Your task to perform on an android device: turn off smart reply in the gmail app Image 0: 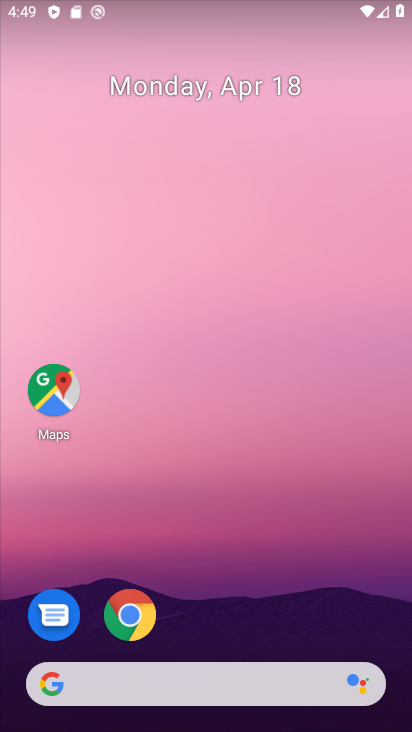
Step 0: click (277, 84)
Your task to perform on an android device: turn off smart reply in the gmail app Image 1: 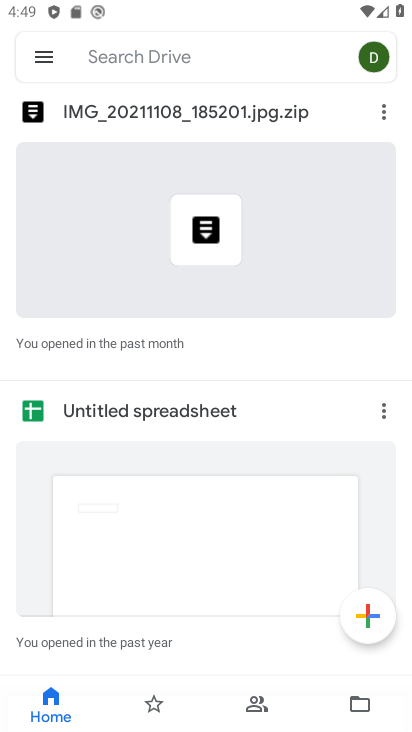
Step 1: press home button
Your task to perform on an android device: turn off smart reply in the gmail app Image 2: 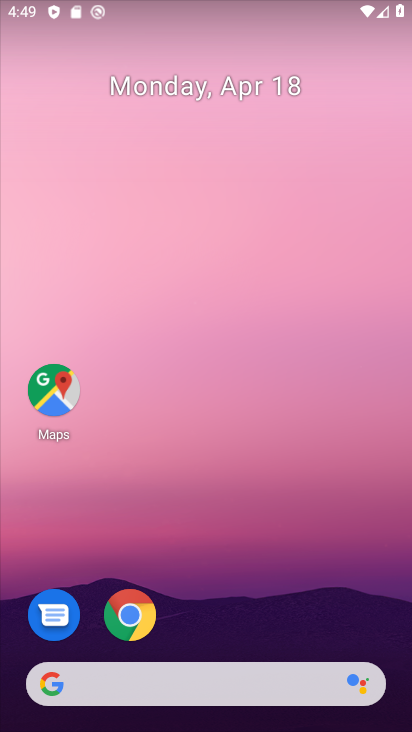
Step 2: drag from (268, 593) to (291, 120)
Your task to perform on an android device: turn off smart reply in the gmail app Image 3: 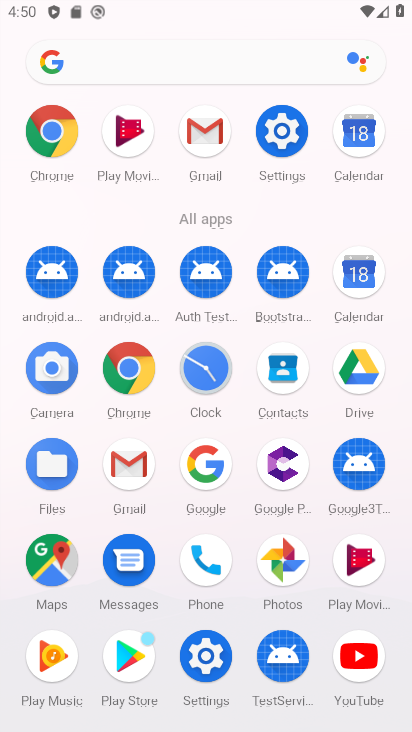
Step 3: click (133, 448)
Your task to perform on an android device: turn off smart reply in the gmail app Image 4: 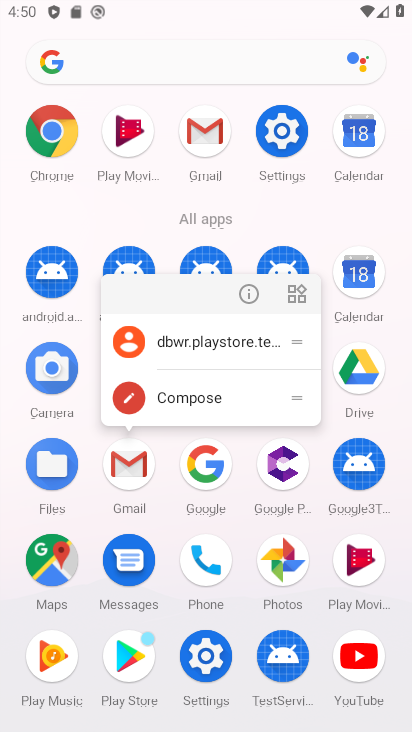
Step 4: click (139, 470)
Your task to perform on an android device: turn off smart reply in the gmail app Image 5: 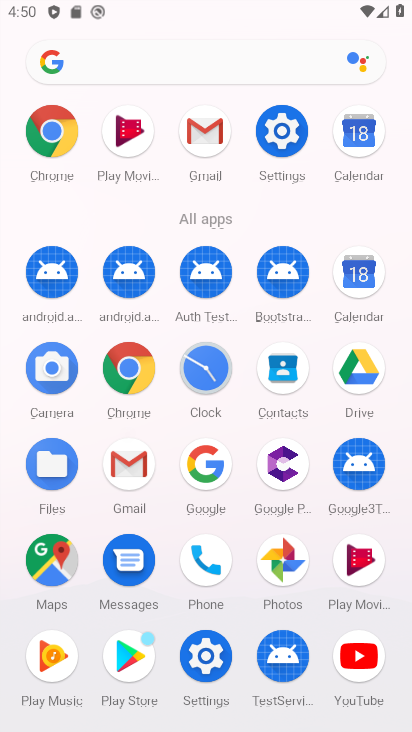
Step 5: click (139, 470)
Your task to perform on an android device: turn off smart reply in the gmail app Image 6: 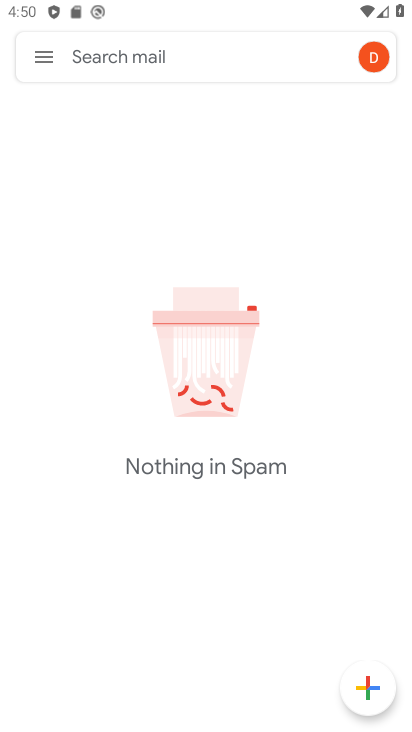
Step 6: click (43, 57)
Your task to perform on an android device: turn off smart reply in the gmail app Image 7: 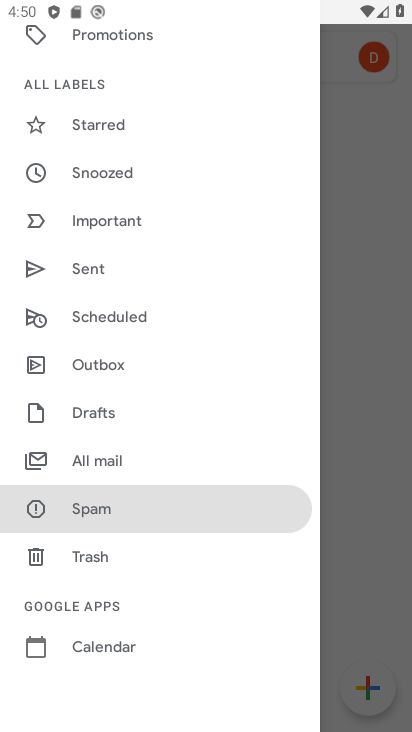
Step 7: drag from (226, 556) to (224, 325)
Your task to perform on an android device: turn off smart reply in the gmail app Image 8: 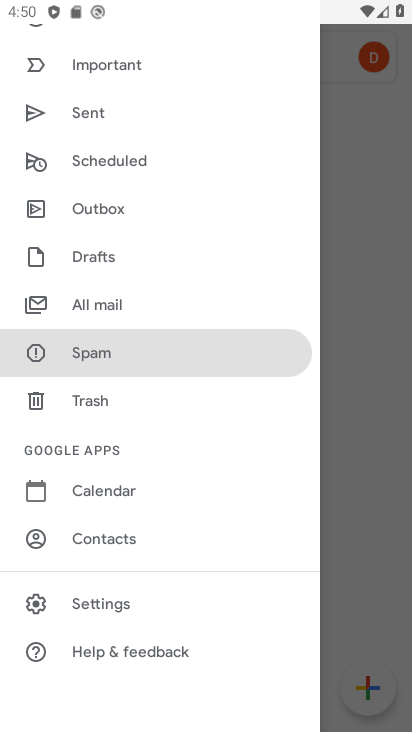
Step 8: click (93, 601)
Your task to perform on an android device: turn off smart reply in the gmail app Image 9: 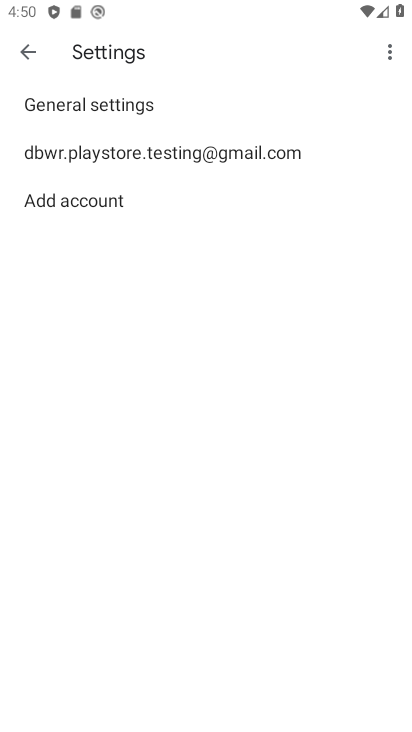
Step 9: click (134, 156)
Your task to perform on an android device: turn off smart reply in the gmail app Image 10: 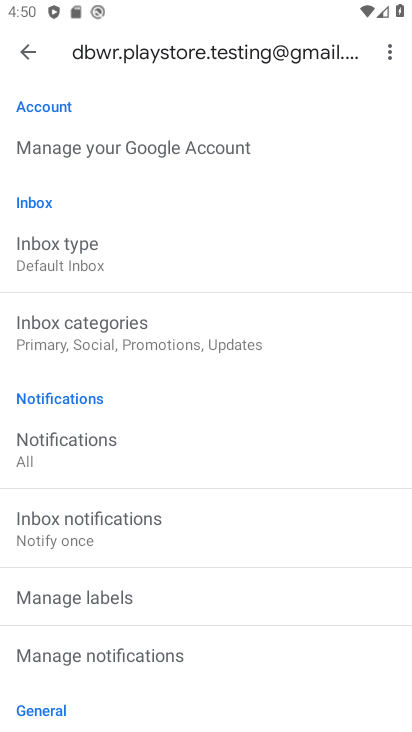
Step 10: drag from (273, 618) to (261, 180)
Your task to perform on an android device: turn off smart reply in the gmail app Image 11: 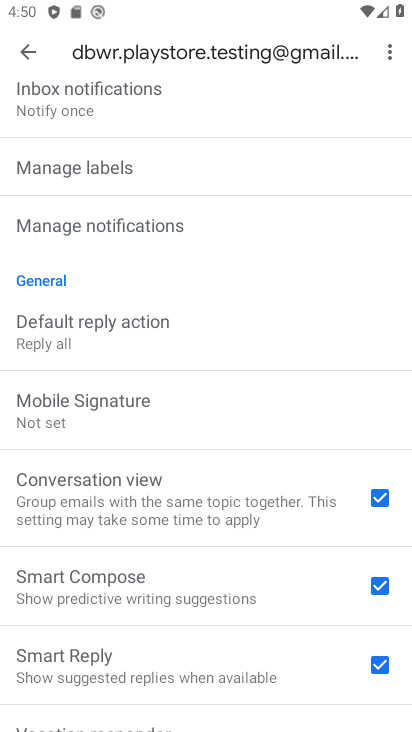
Step 11: click (152, 663)
Your task to perform on an android device: turn off smart reply in the gmail app Image 12: 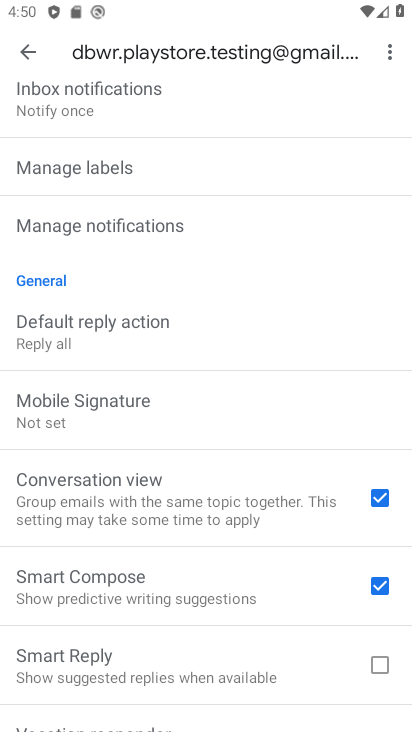
Step 12: task complete